Your task to perform on an android device: Go to Wikipedia Image 0: 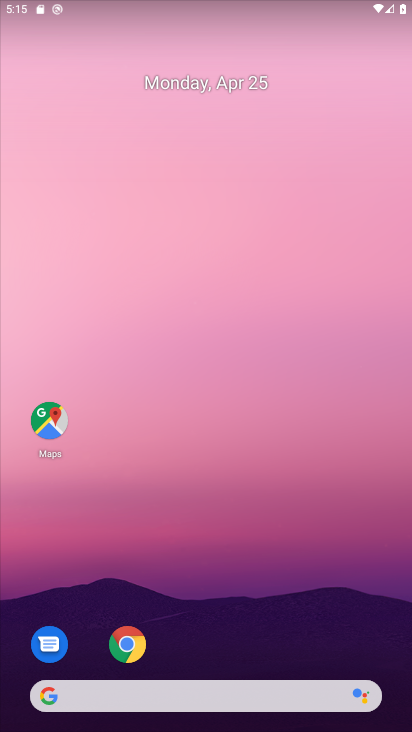
Step 0: click (132, 635)
Your task to perform on an android device: Go to Wikipedia Image 1: 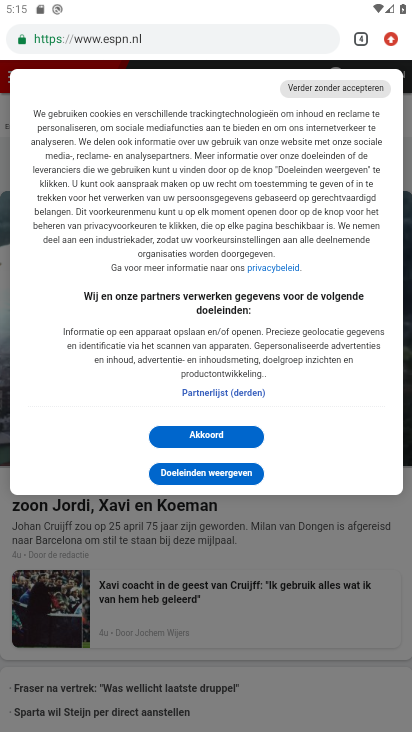
Step 1: click (355, 38)
Your task to perform on an android device: Go to Wikipedia Image 2: 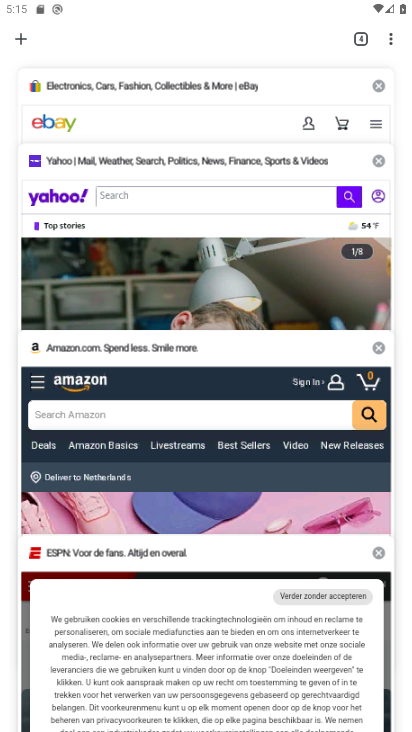
Step 2: click (22, 38)
Your task to perform on an android device: Go to Wikipedia Image 3: 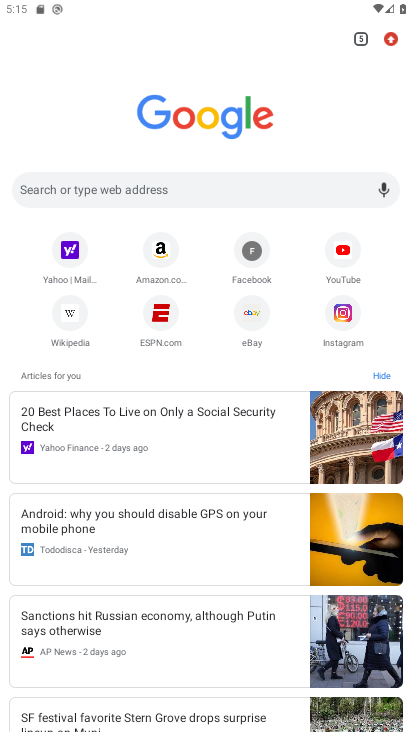
Step 3: click (65, 315)
Your task to perform on an android device: Go to Wikipedia Image 4: 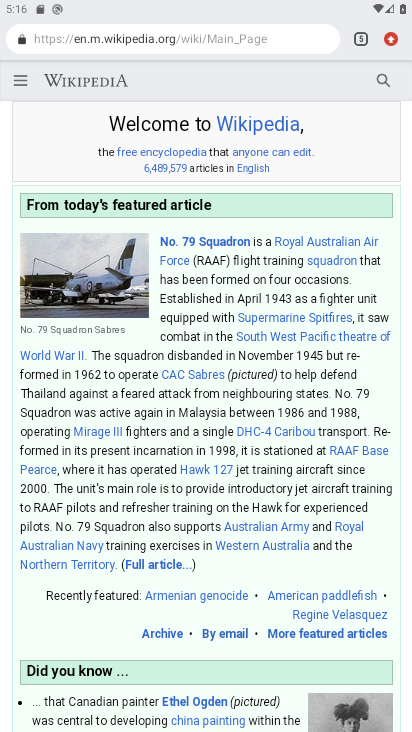
Step 4: task complete